Your task to perform on an android device: toggle pop-ups in chrome Image 0: 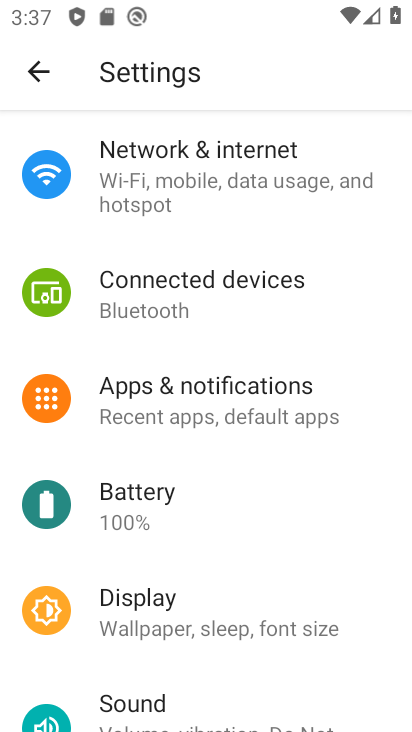
Step 0: press home button
Your task to perform on an android device: toggle pop-ups in chrome Image 1: 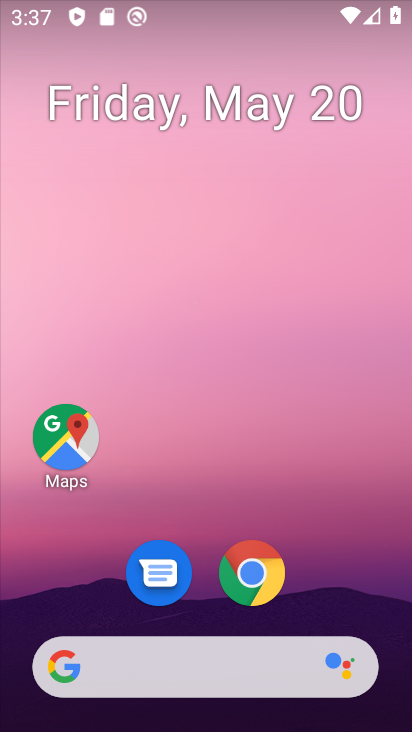
Step 1: drag from (357, 590) to (334, 265)
Your task to perform on an android device: toggle pop-ups in chrome Image 2: 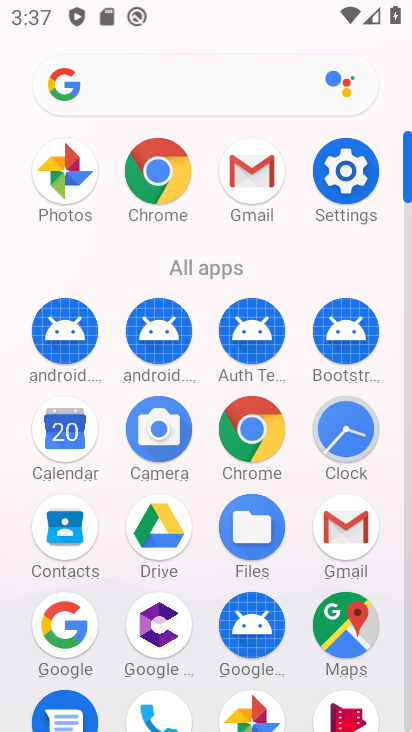
Step 2: click (250, 439)
Your task to perform on an android device: toggle pop-ups in chrome Image 3: 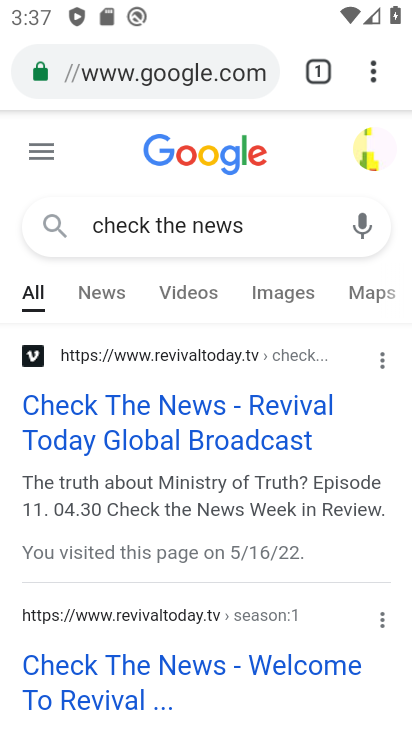
Step 3: click (371, 67)
Your task to perform on an android device: toggle pop-ups in chrome Image 4: 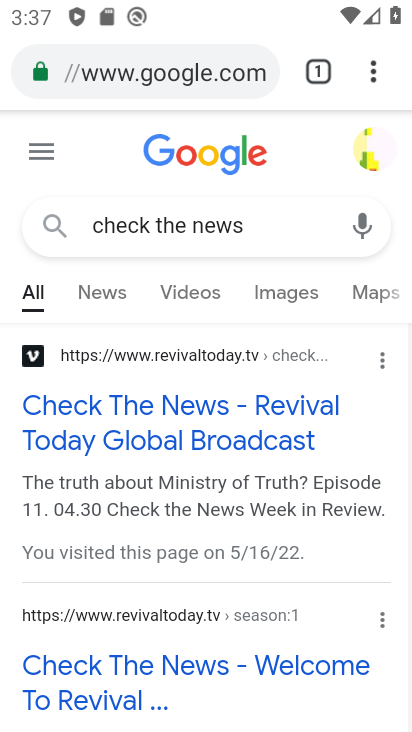
Step 4: drag from (369, 69) to (159, 567)
Your task to perform on an android device: toggle pop-ups in chrome Image 5: 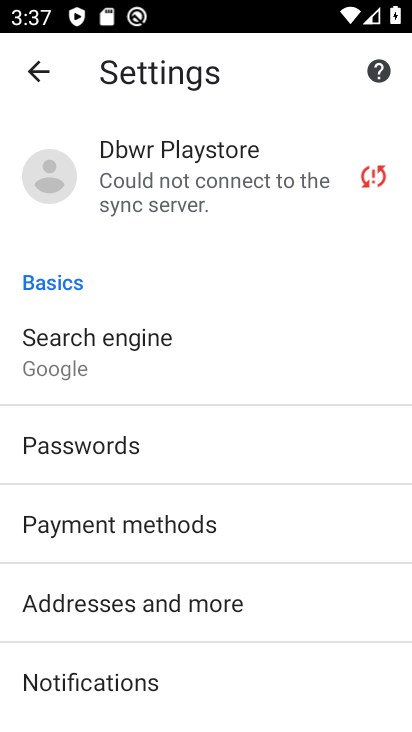
Step 5: drag from (220, 677) to (277, 317)
Your task to perform on an android device: toggle pop-ups in chrome Image 6: 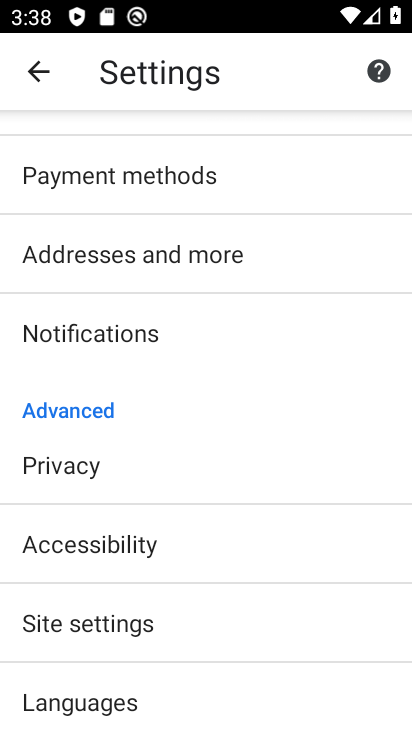
Step 6: drag from (239, 663) to (242, 282)
Your task to perform on an android device: toggle pop-ups in chrome Image 7: 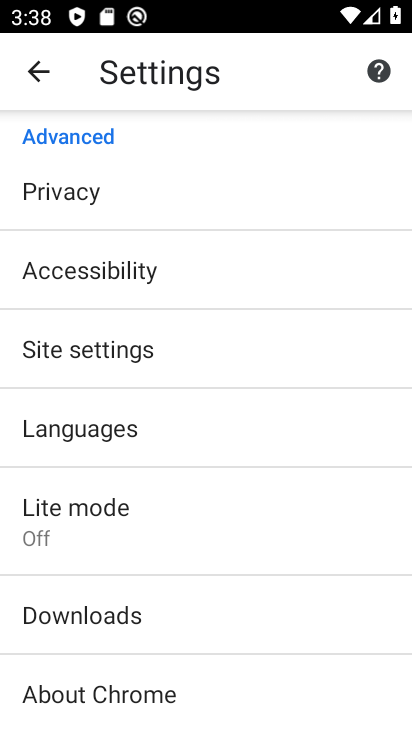
Step 7: drag from (140, 607) to (222, 344)
Your task to perform on an android device: toggle pop-ups in chrome Image 8: 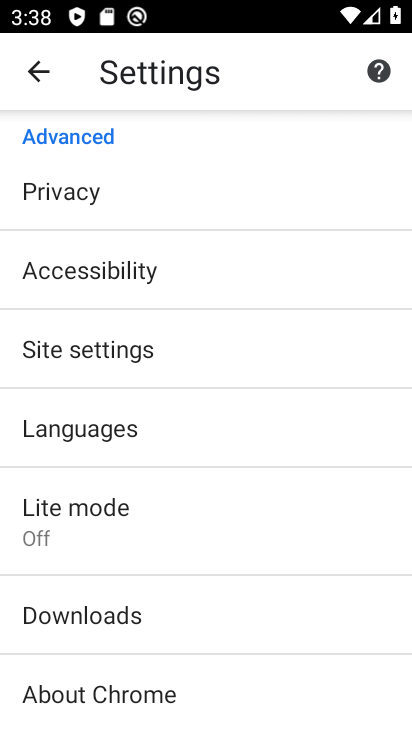
Step 8: click (205, 364)
Your task to perform on an android device: toggle pop-ups in chrome Image 9: 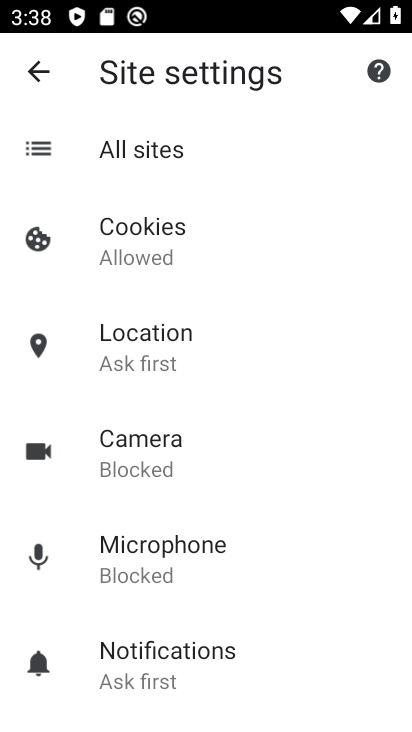
Step 9: drag from (242, 603) to (264, 313)
Your task to perform on an android device: toggle pop-ups in chrome Image 10: 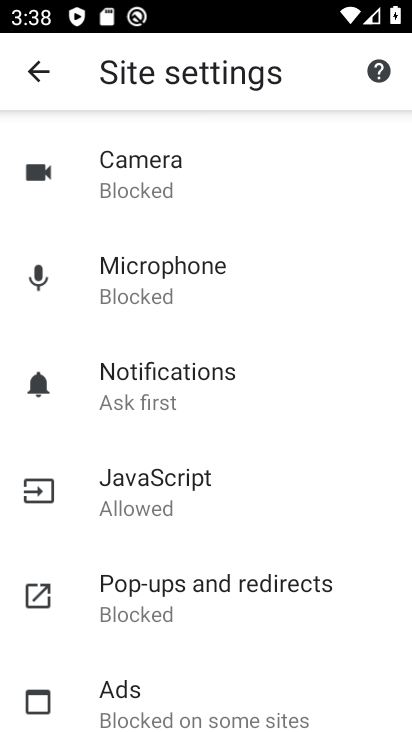
Step 10: drag from (186, 645) to (205, 377)
Your task to perform on an android device: toggle pop-ups in chrome Image 11: 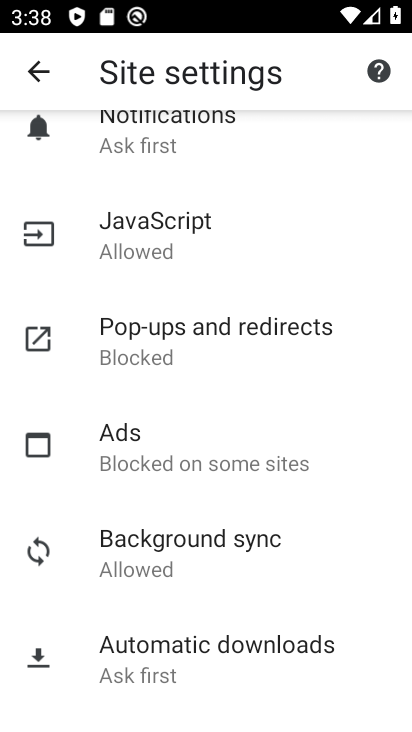
Step 11: drag from (215, 442) to (232, 607)
Your task to perform on an android device: toggle pop-ups in chrome Image 12: 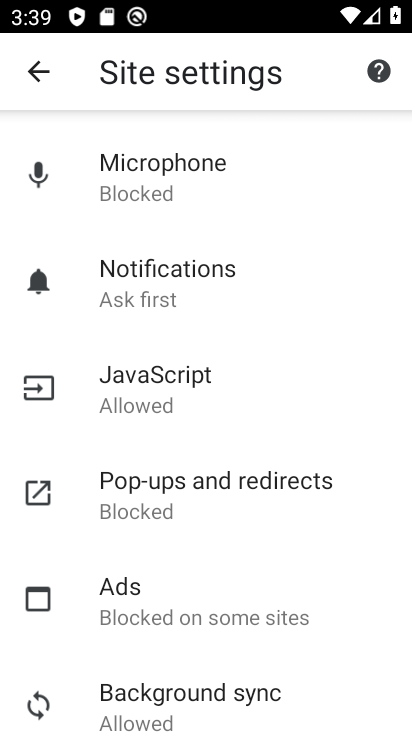
Step 12: click (231, 484)
Your task to perform on an android device: toggle pop-ups in chrome Image 13: 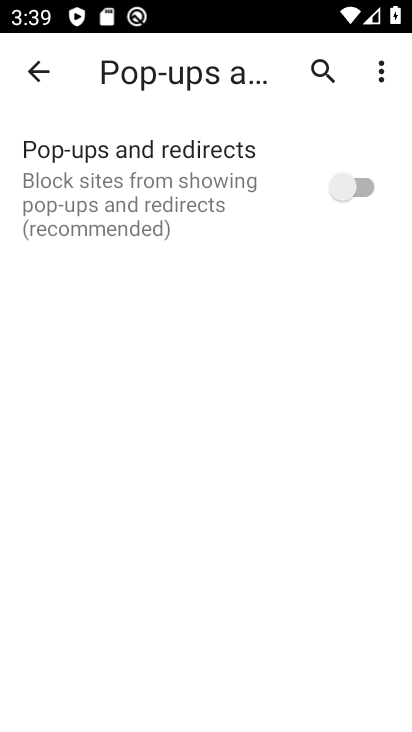
Step 13: click (370, 190)
Your task to perform on an android device: toggle pop-ups in chrome Image 14: 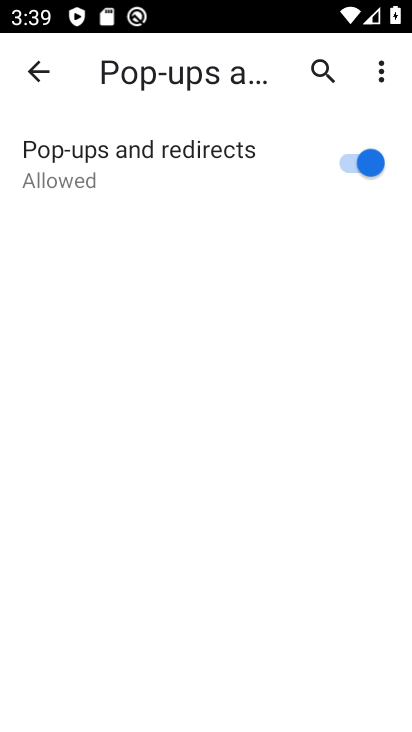
Step 14: task complete